Your task to perform on an android device: When is my next appointment? Image 0: 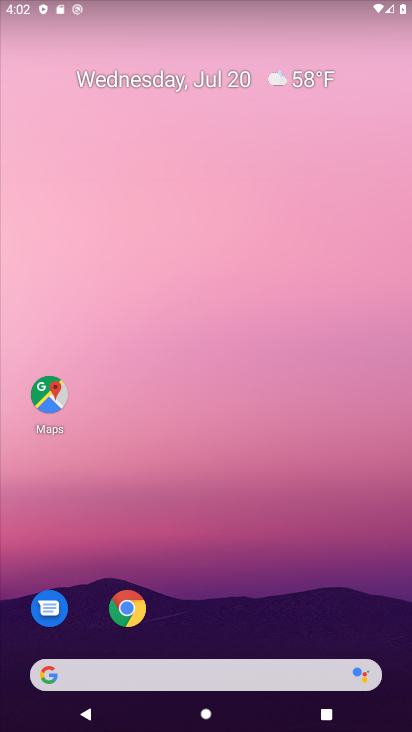
Step 0: drag from (124, 583) to (218, 25)
Your task to perform on an android device: When is my next appointment? Image 1: 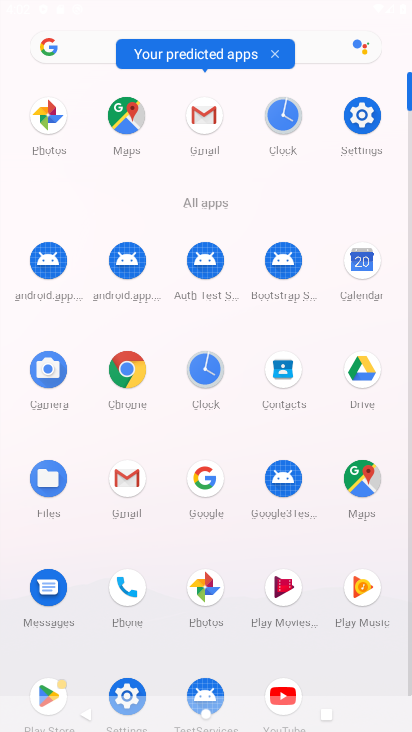
Step 1: click (364, 271)
Your task to perform on an android device: When is my next appointment? Image 2: 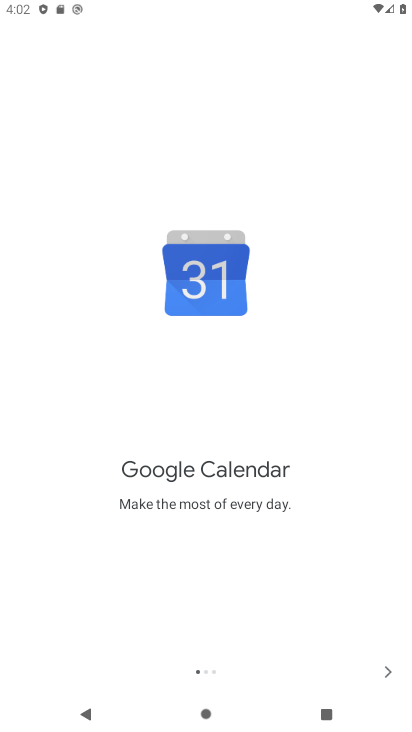
Step 2: click (381, 667)
Your task to perform on an android device: When is my next appointment? Image 3: 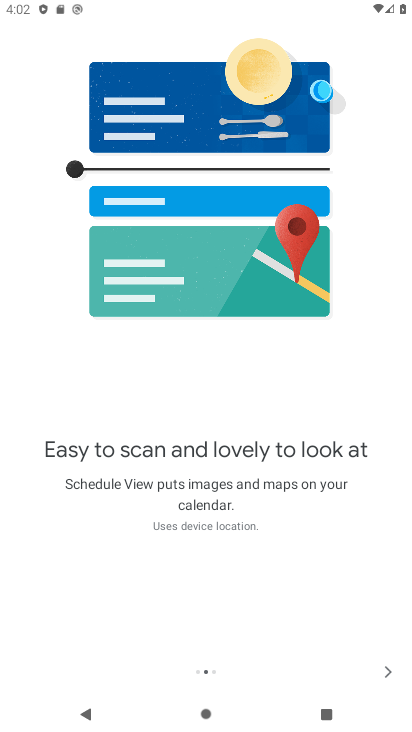
Step 3: click (389, 656)
Your task to perform on an android device: When is my next appointment? Image 4: 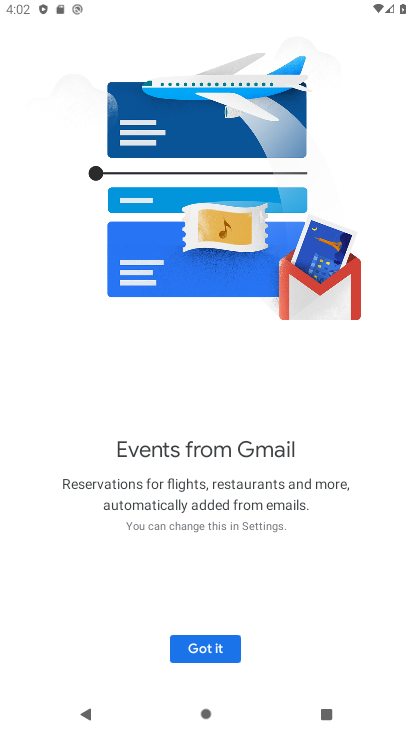
Step 4: click (242, 647)
Your task to perform on an android device: When is my next appointment? Image 5: 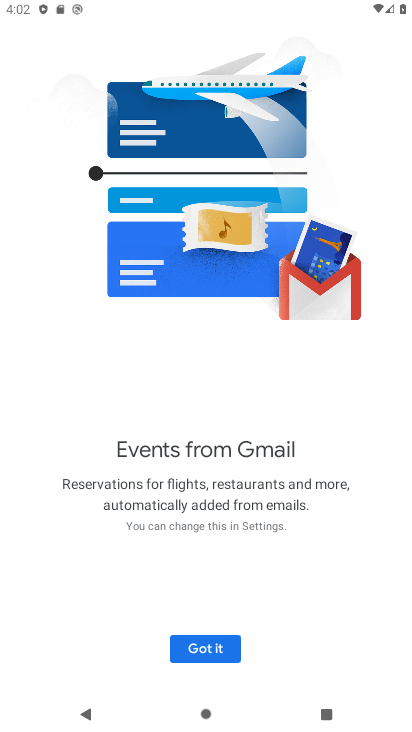
Step 5: click (234, 647)
Your task to perform on an android device: When is my next appointment? Image 6: 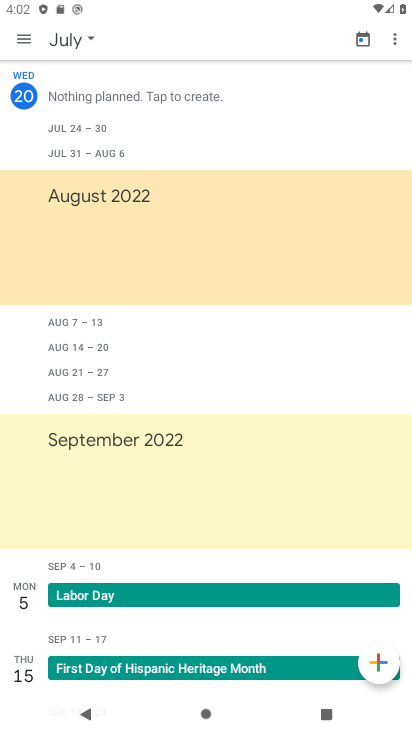
Step 6: task complete